Your task to perform on an android device: When is my next appointment? Image 0: 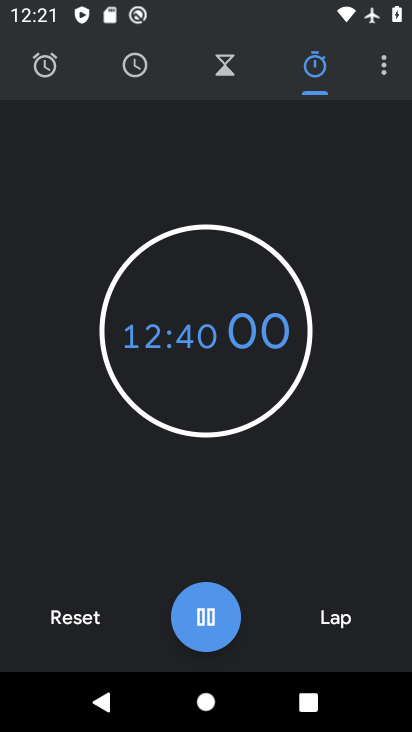
Step 0: click (82, 613)
Your task to perform on an android device: When is my next appointment? Image 1: 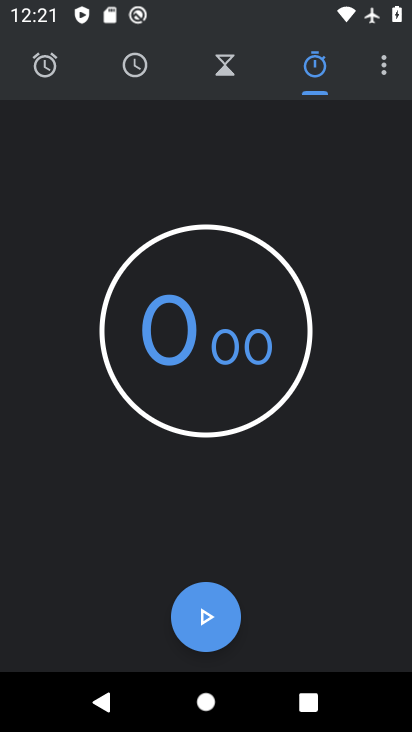
Step 1: press home button
Your task to perform on an android device: When is my next appointment? Image 2: 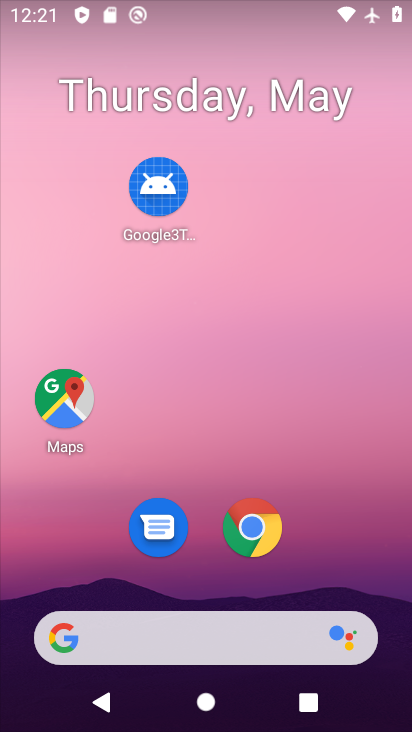
Step 2: drag from (215, 574) to (265, 60)
Your task to perform on an android device: When is my next appointment? Image 3: 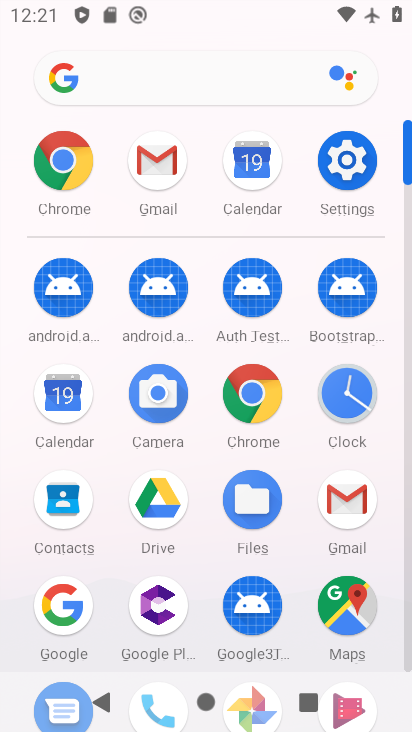
Step 3: click (70, 381)
Your task to perform on an android device: When is my next appointment? Image 4: 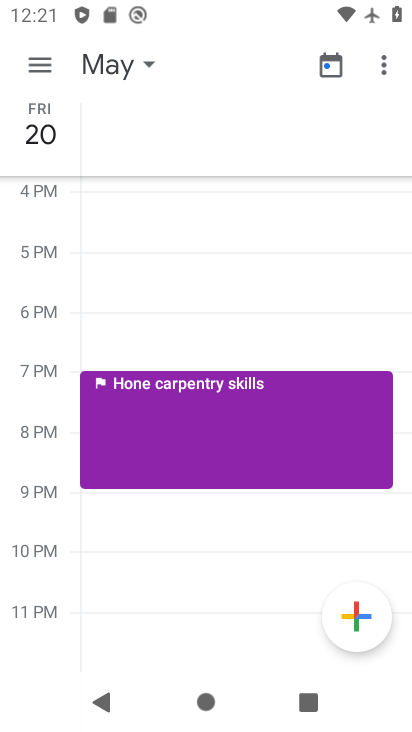
Step 4: click (62, 146)
Your task to perform on an android device: When is my next appointment? Image 5: 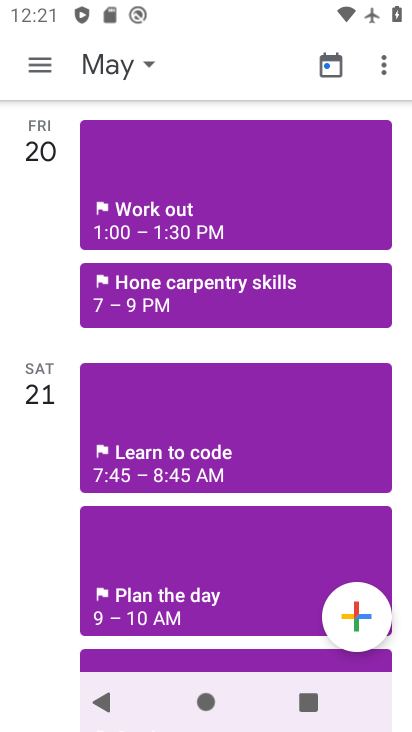
Step 5: task complete